Your task to perform on an android device: allow notifications from all sites in the chrome app Image 0: 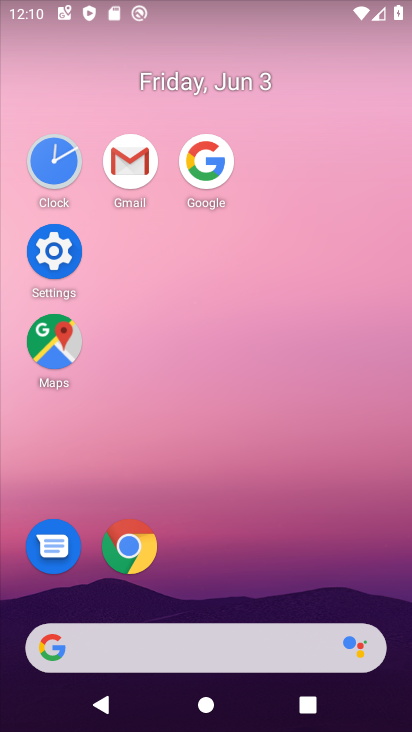
Step 0: click (132, 543)
Your task to perform on an android device: allow notifications from all sites in the chrome app Image 1: 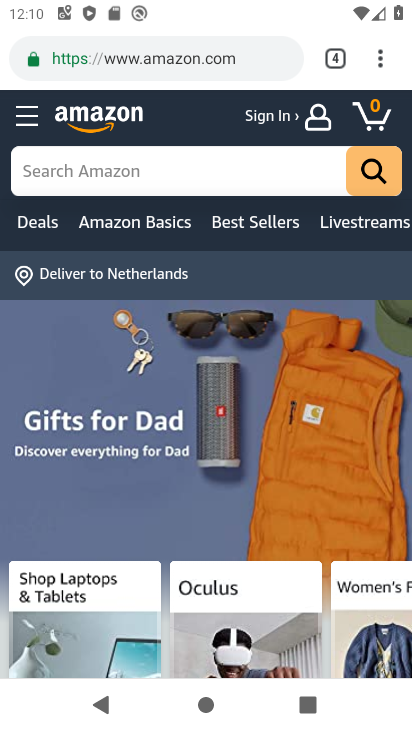
Step 1: click (380, 60)
Your task to perform on an android device: allow notifications from all sites in the chrome app Image 2: 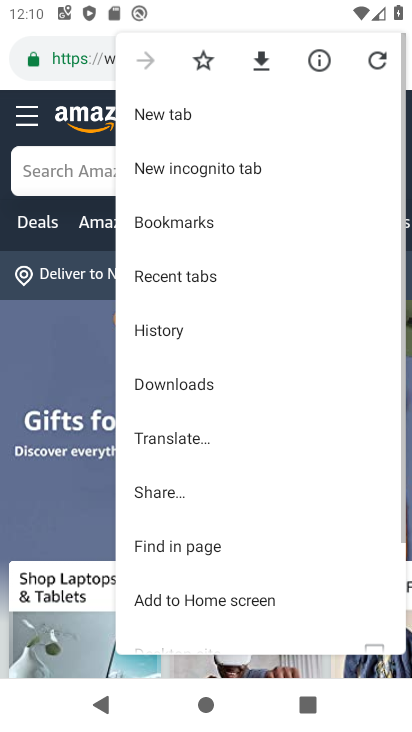
Step 2: drag from (203, 540) to (166, 157)
Your task to perform on an android device: allow notifications from all sites in the chrome app Image 3: 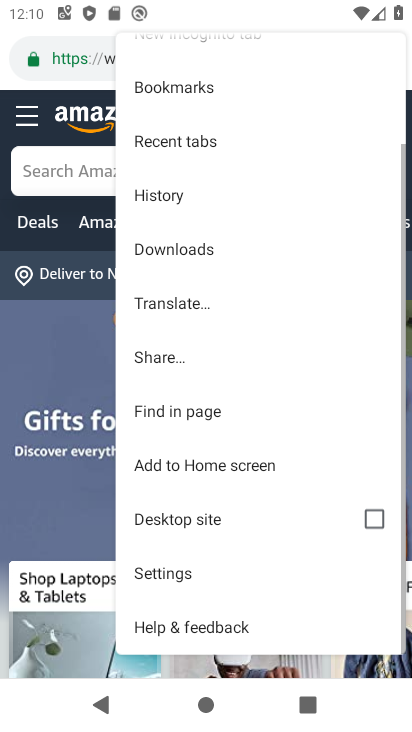
Step 3: click (141, 576)
Your task to perform on an android device: allow notifications from all sites in the chrome app Image 4: 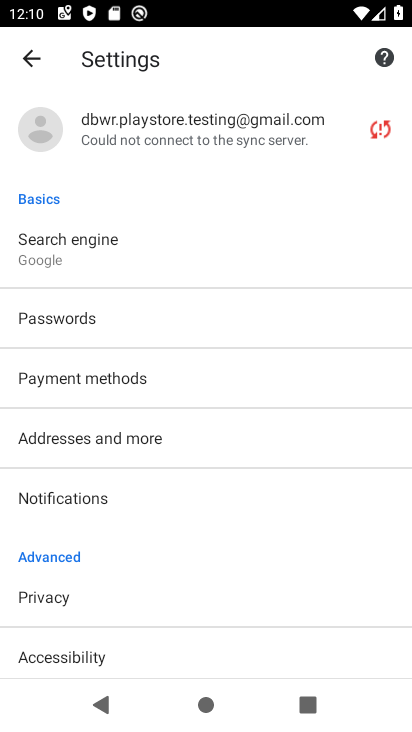
Step 4: drag from (141, 576) to (205, 208)
Your task to perform on an android device: allow notifications from all sites in the chrome app Image 5: 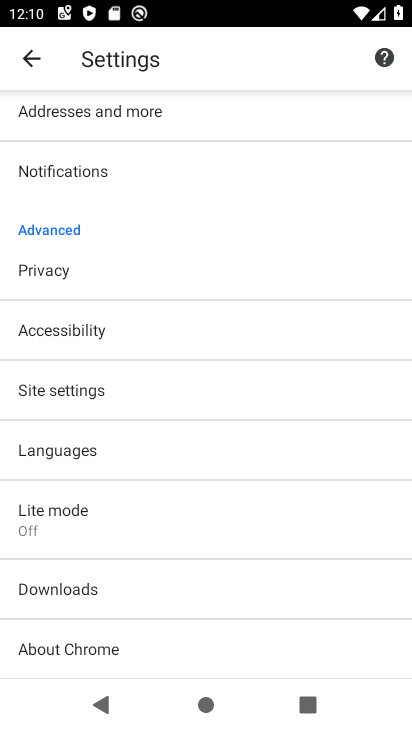
Step 5: drag from (151, 532) to (220, 235)
Your task to perform on an android device: allow notifications from all sites in the chrome app Image 6: 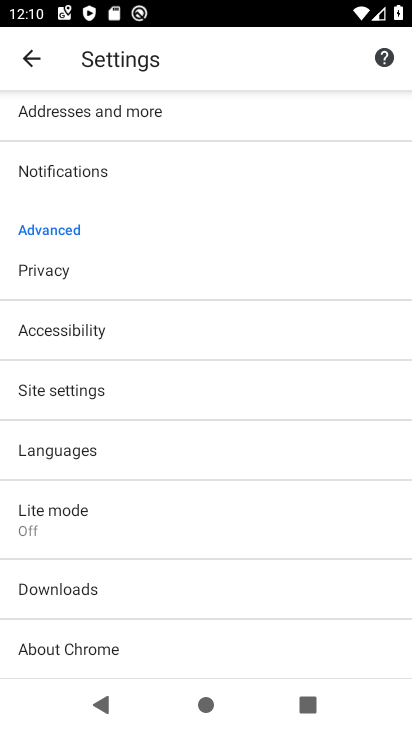
Step 6: drag from (163, 508) to (219, 201)
Your task to perform on an android device: allow notifications from all sites in the chrome app Image 7: 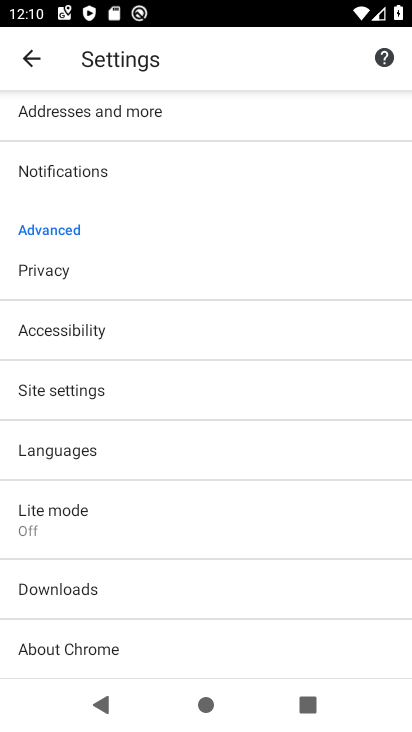
Step 7: drag from (189, 183) to (146, 531)
Your task to perform on an android device: allow notifications from all sites in the chrome app Image 8: 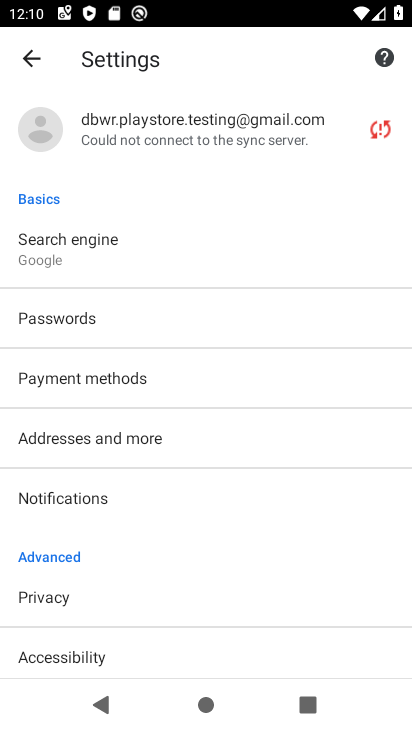
Step 8: drag from (134, 613) to (232, 192)
Your task to perform on an android device: allow notifications from all sites in the chrome app Image 9: 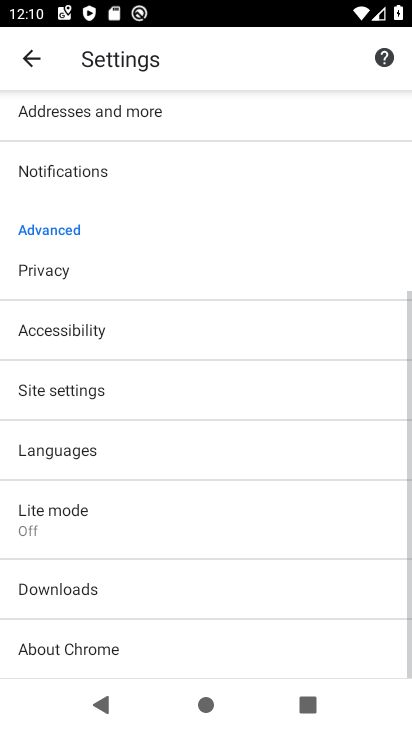
Step 9: click (152, 393)
Your task to perform on an android device: allow notifications from all sites in the chrome app Image 10: 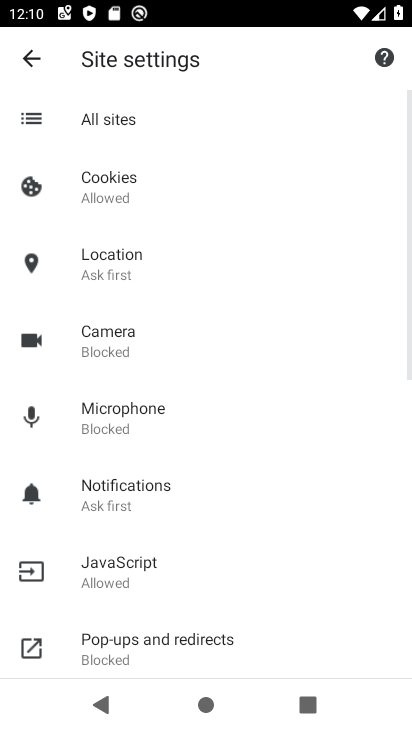
Step 10: click (195, 503)
Your task to perform on an android device: allow notifications from all sites in the chrome app Image 11: 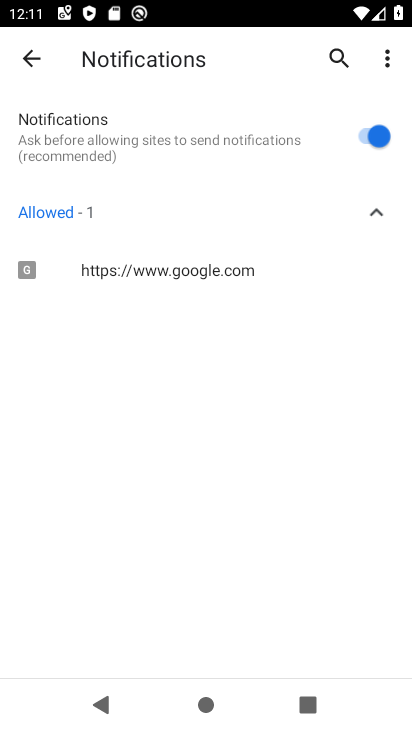
Step 11: task complete